Your task to perform on an android device: change notifications settings Image 0: 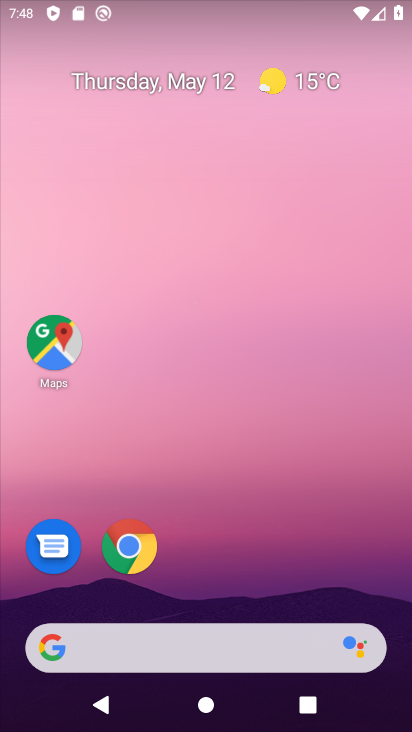
Step 0: press home button
Your task to perform on an android device: change notifications settings Image 1: 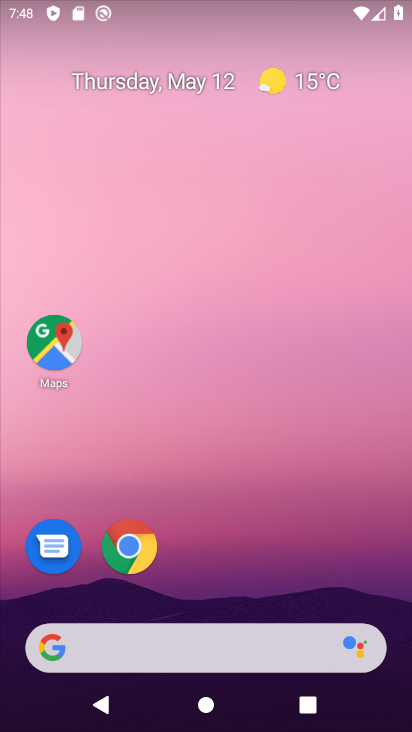
Step 1: drag from (169, 637) to (302, 117)
Your task to perform on an android device: change notifications settings Image 2: 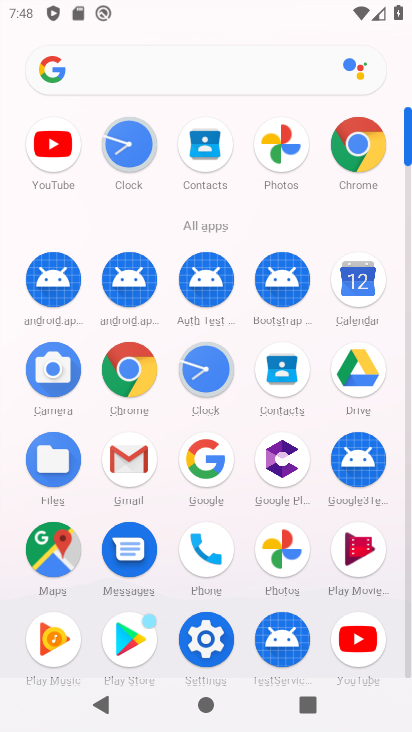
Step 2: click (210, 649)
Your task to perform on an android device: change notifications settings Image 3: 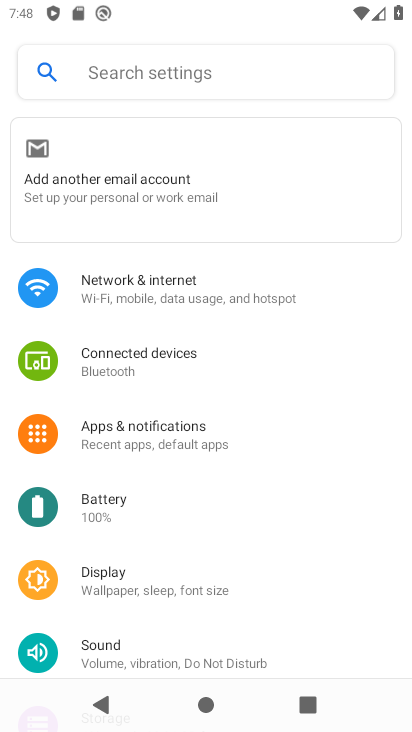
Step 3: click (177, 432)
Your task to perform on an android device: change notifications settings Image 4: 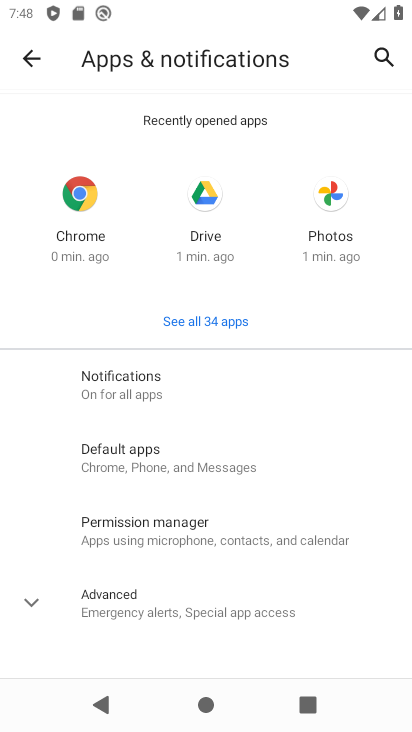
Step 4: click (129, 388)
Your task to perform on an android device: change notifications settings Image 5: 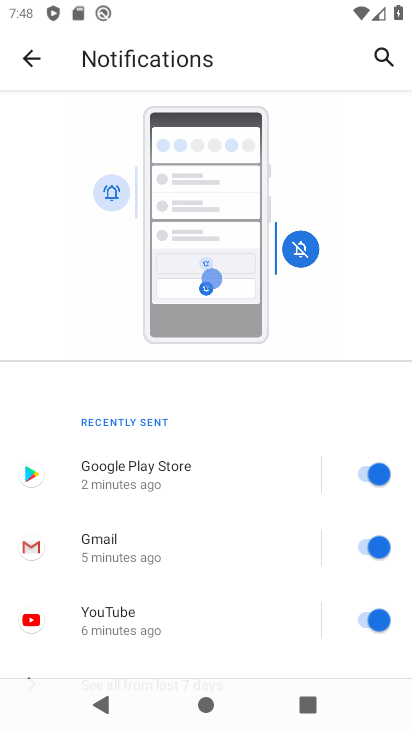
Step 5: task complete